Your task to perform on an android device: change the clock display to analog Image 0: 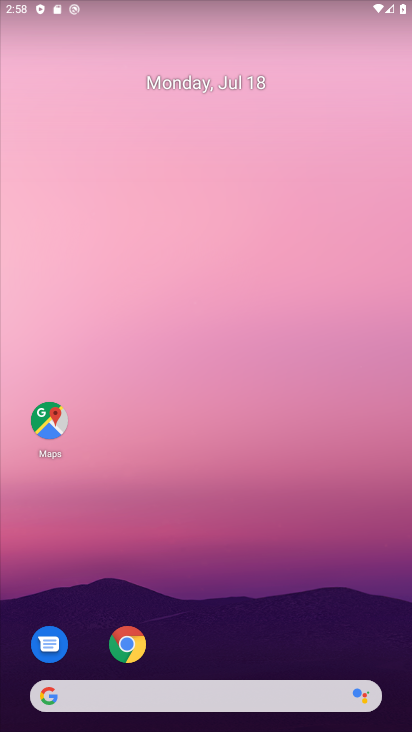
Step 0: press home button
Your task to perform on an android device: change the clock display to analog Image 1: 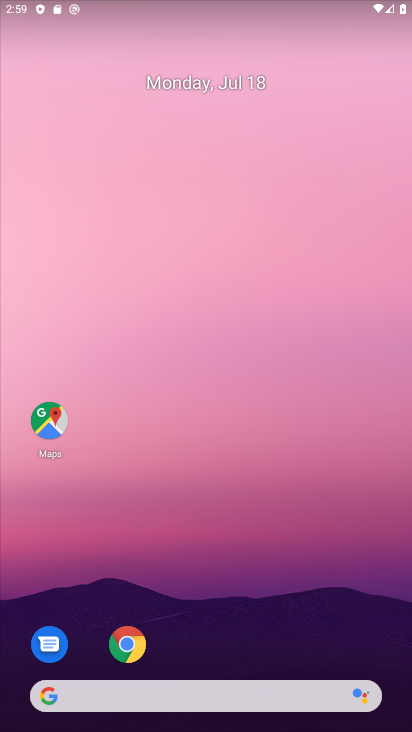
Step 1: drag from (236, 436) to (235, 106)
Your task to perform on an android device: change the clock display to analog Image 2: 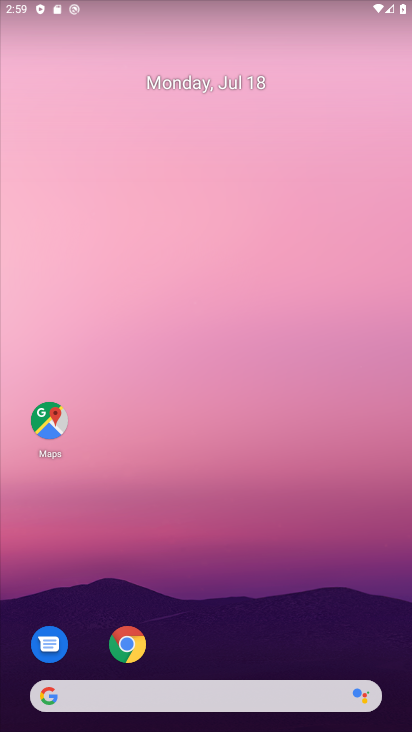
Step 2: drag from (231, 594) to (268, 22)
Your task to perform on an android device: change the clock display to analog Image 3: 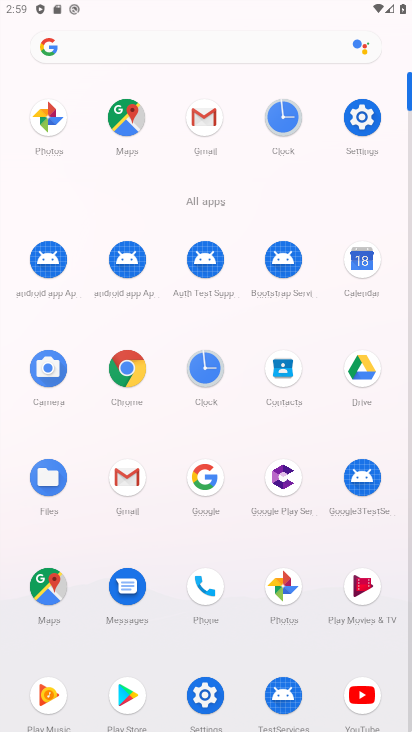
Step 3: click (287, 128)
Your task to perform on an android device: change the clock display to analog Image 4: 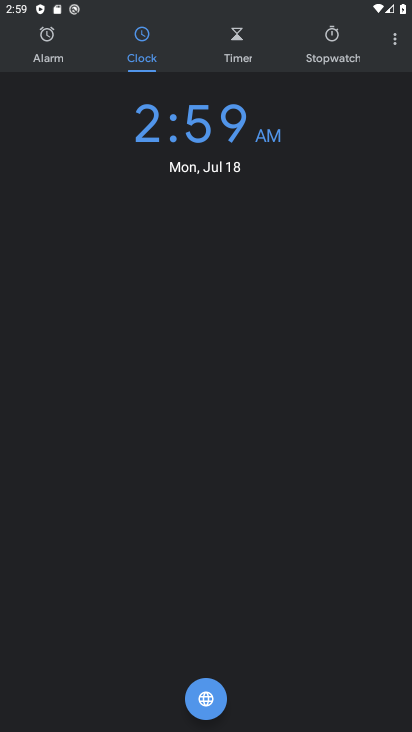
Step 4: click (398, 42)
Your task to perform on an android device: change the clock display to analog Image 5: 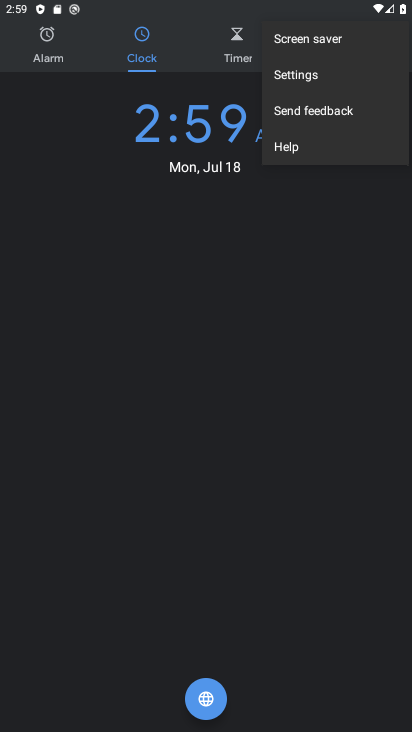
Step 5: click (302, 76)
Your task to perform on an android device: change the clock display to analog Image 6: 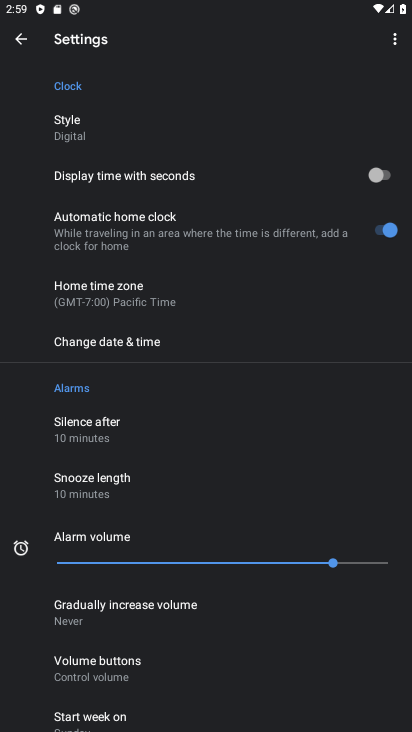
Step 6: click (70, 140)
Your task to perform on an android device: change the clock display to analog Image 7: 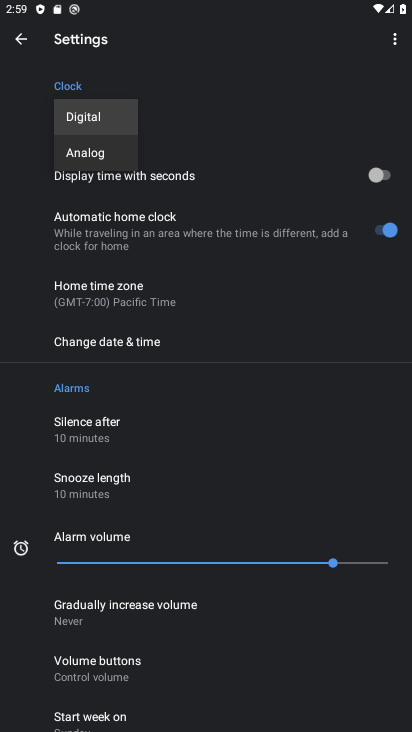
Step 7: click (85, 163)
Your task to perform on an android device: change the clock display to analog Image 8: 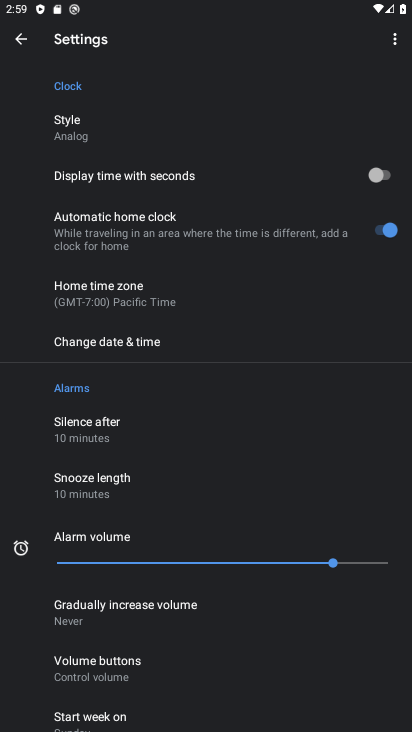
Step 8: task complete